Your task to perform on an android device: Open calendar and show me the fourth week of next month Image 0: 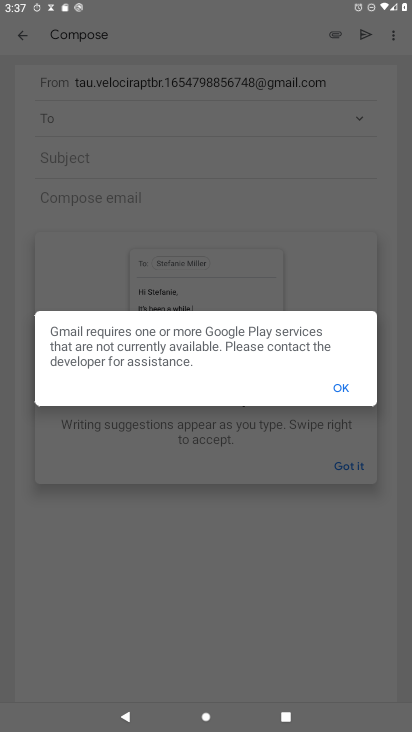
Step 0: press home button
Your task to perform on an android device: Open calendar and show me the fourth week of next month Image 1: 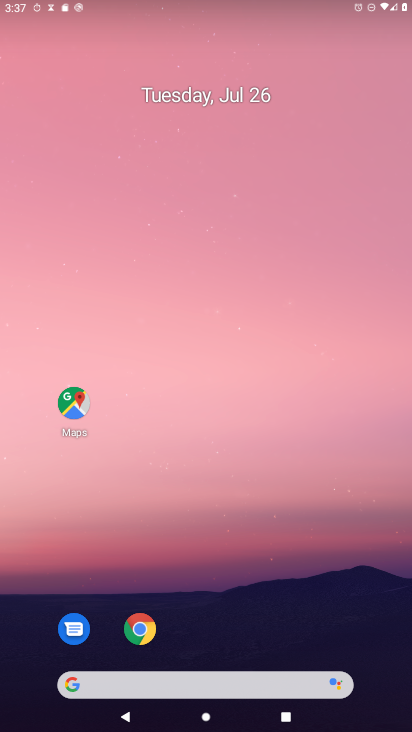
Step 1: drag from (182, 682) to (178, 0)
Your task to perform on an android device: Open calendar and show me the fourth week of next month Image 2: 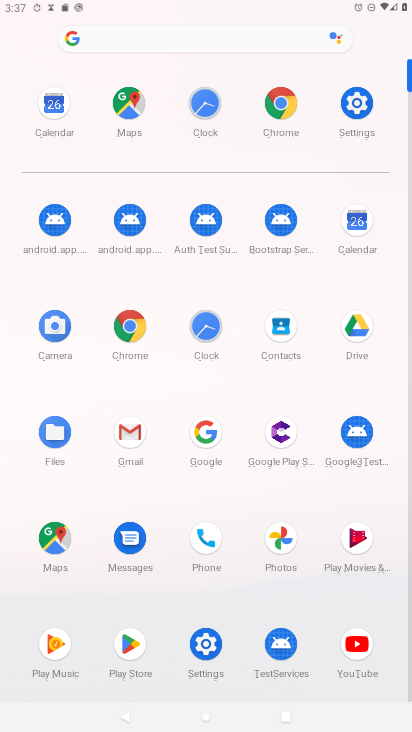
Step 2: click (365, 229)
Your task to perform on an android device: Open calendar and show me the fourth week of next month Image 3: 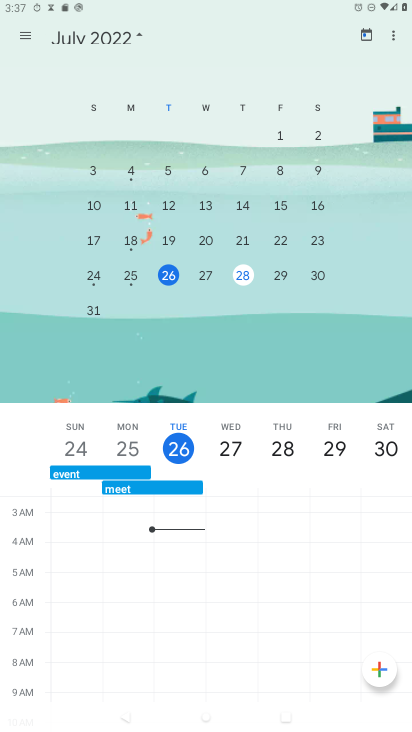
Step 3: drag from (315, 271) to (37, 238)
Your task to perform on an android device: Open calendar and show me the fourth week of next month Image 4: 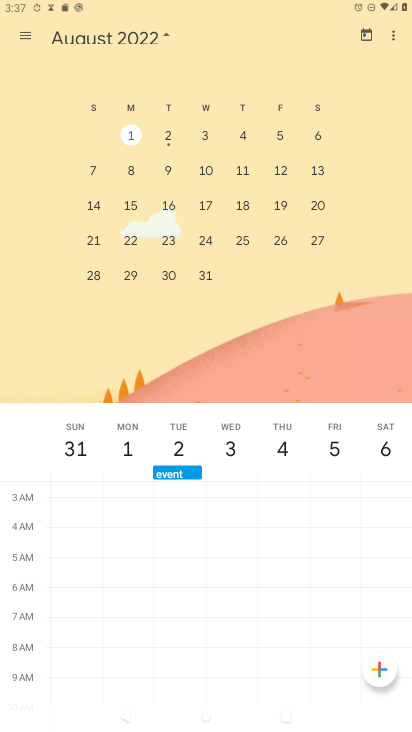
Step 4: click (210, 235)
Your task to perform on an android device: Open calendar and show me the fourth week of next month Image 5: 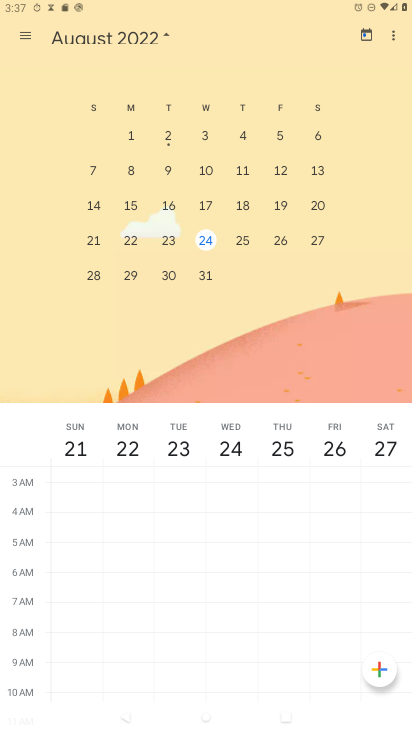
Step 5: task complete